Your task to perform on an android device: Clear all items from cart on amazon.com. Add "razer nari" to the cart on amazon.com Image 0: 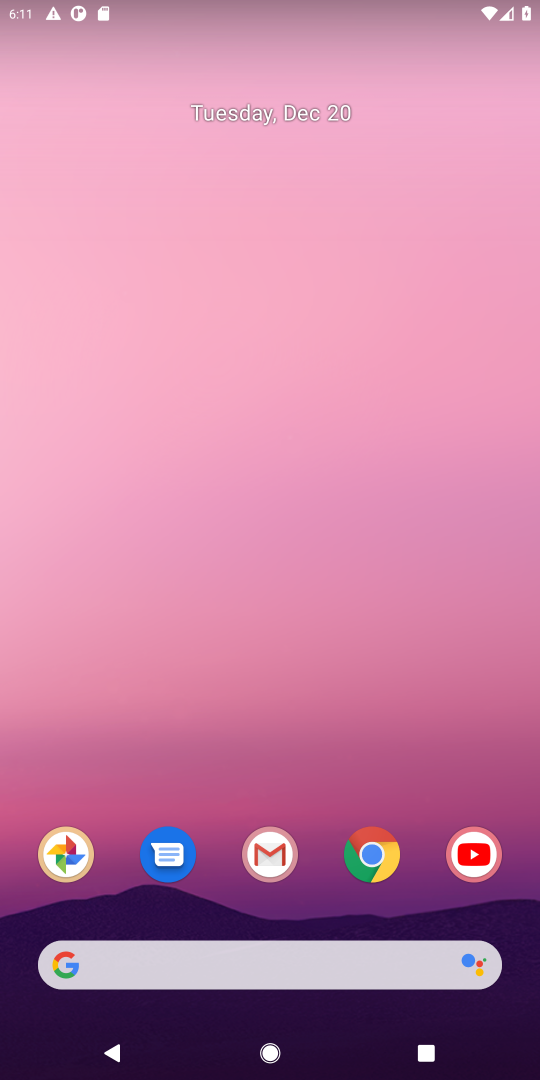
Step 0: click (369, 863)
Your task to perform on an android device: Clear all items from cart on amazon.com. Add "razer nari" to the cart on amazon.com Image 1: 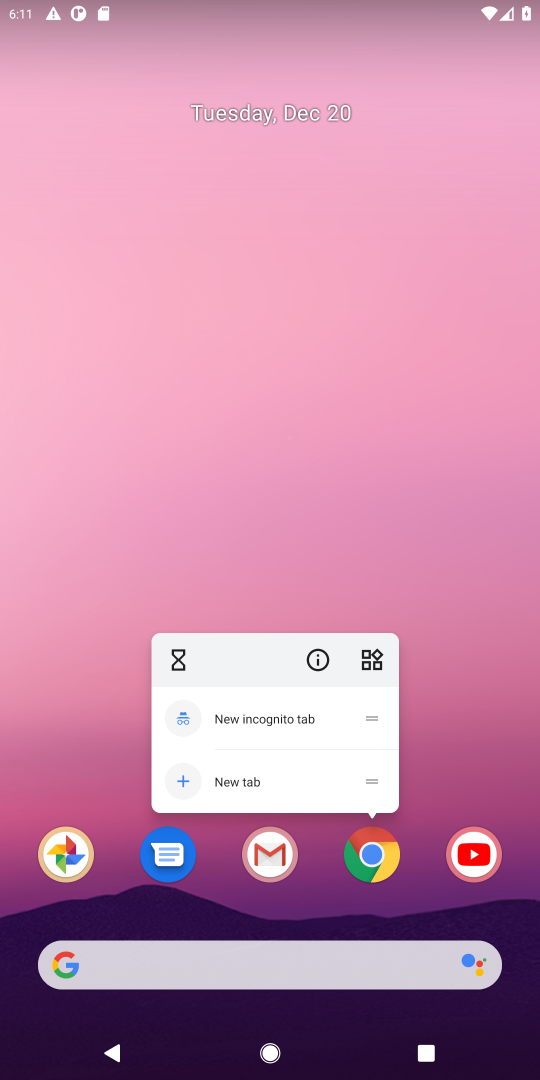
Step 1: click (372, 867)
Your task to perform on an android device: Clear all items from cart on amazon.com. Add "razer nari" to the cart on amazon.com Image 2: 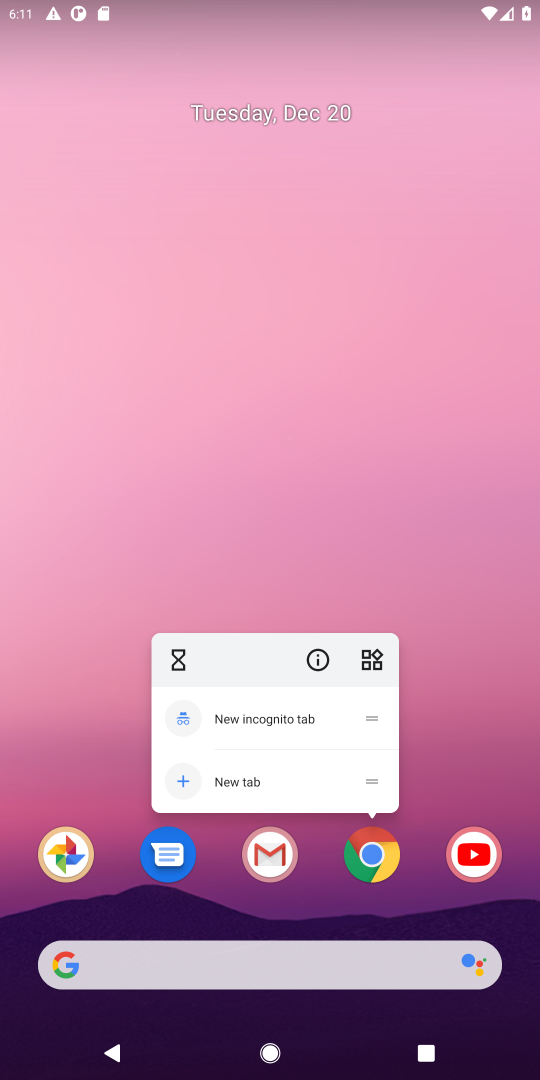
Step 2: click (372, 867)
Your task to perform on an android device: Clear all items from cart on amazon.com. Add "razer nari" to the cart on amazon.com Image 3: 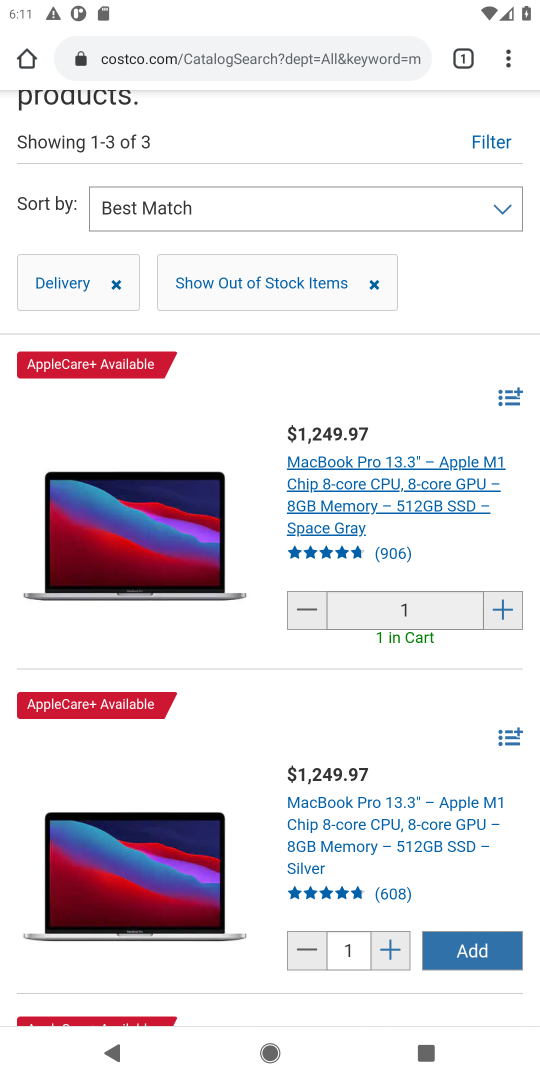
Step 3: click (208, 60)
Your task to perform on an android device: Clear all items from cart on amazon.com. Add "razer nari" to the cart on amazon.com Image 4: 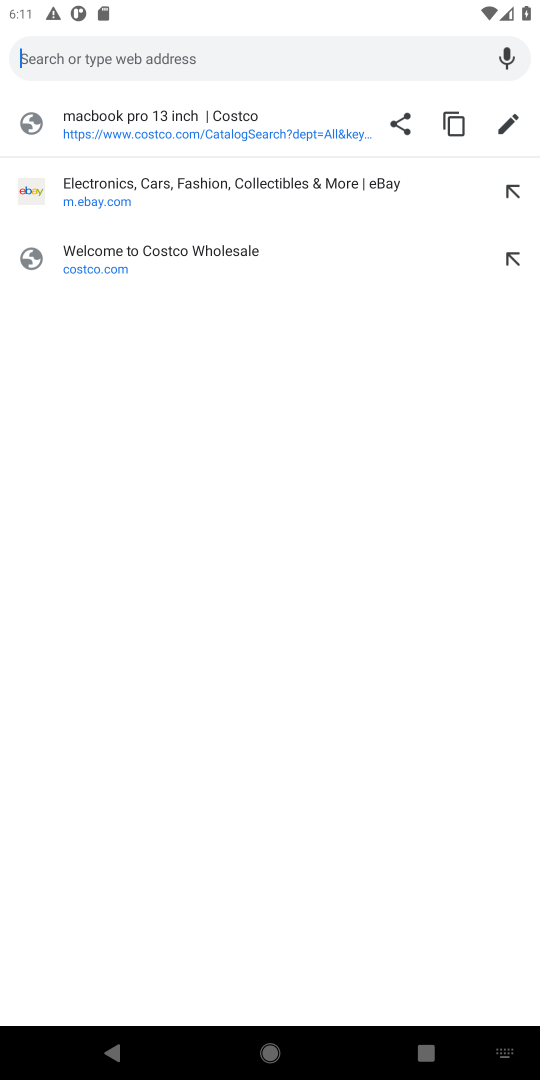
Step 4: type "amazon.com"
Your task to perform on an android device: Clear all items from cart on amazon.com. Add "razer nari" to the cart on amazon.com Image 5: 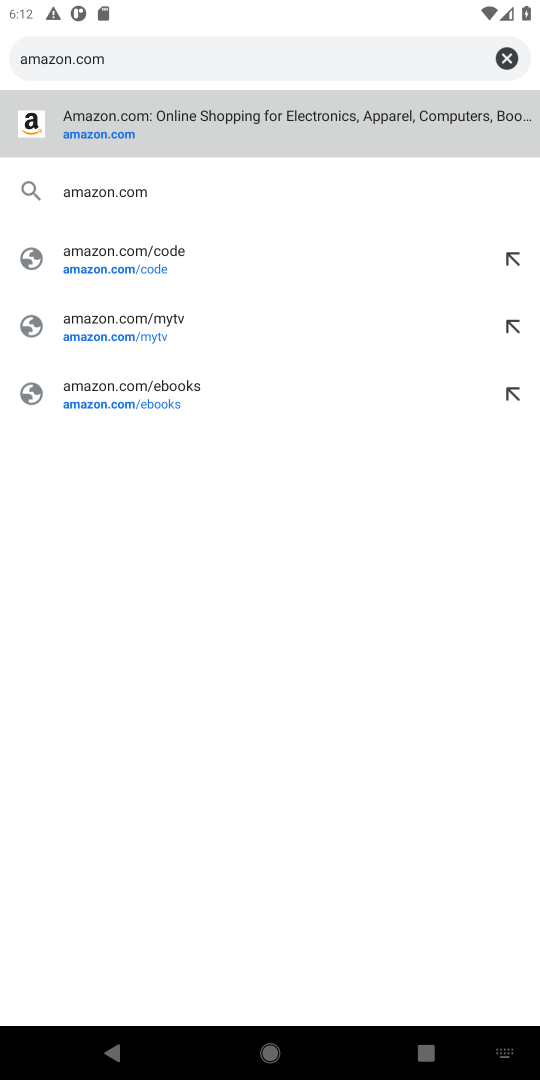
Step 5: click (92, 135)
Your task to perform on an android device: Clear all items from cart on amazon.com. Add "razer nari" to the cart on amazon.com Image 6: 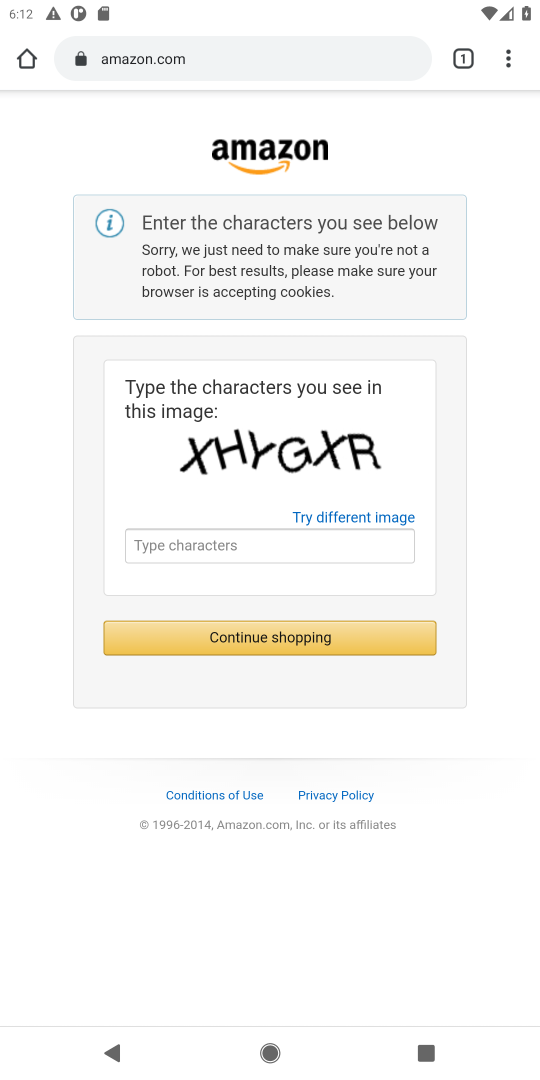
Step 6: click (198, 546)
Your task to perform on an android device: Clear all items from cart on amazon.com. Add "razer nari" to the cart on amazon.com Image 7: 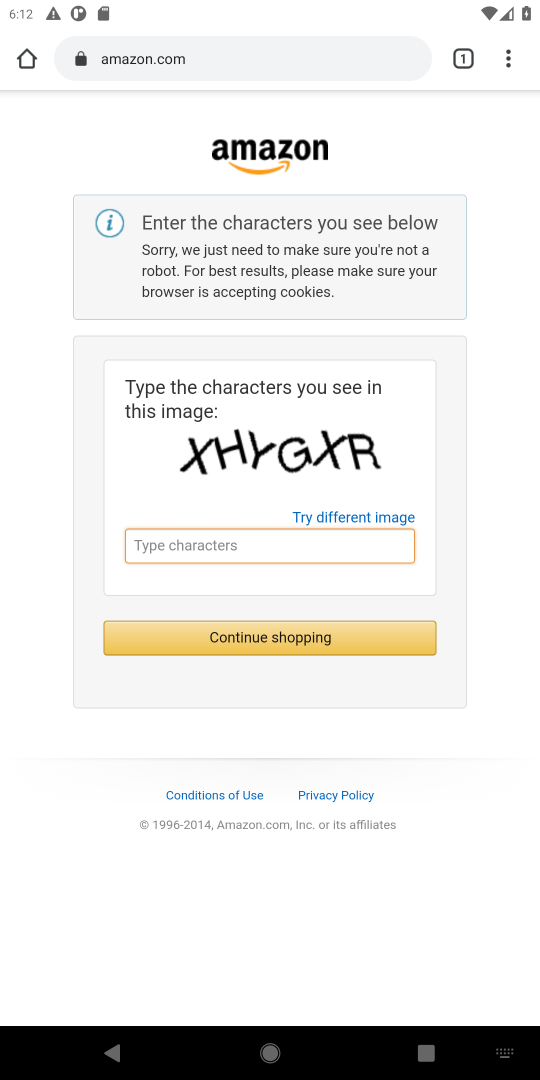
Step 7: type "XHYGXR"
Your task to perform on an android device: Clear all items from cart on amazon.com. Add "razer nari" to the cart on amazon.com Image 8: 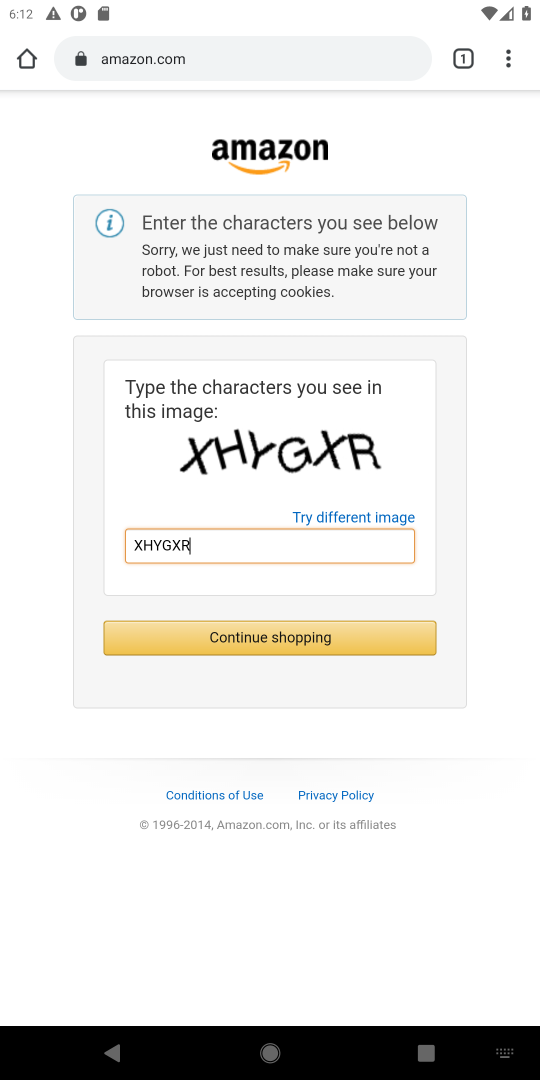
Step 8: click (218, 646)
Your task to perform on an android device: Clear all items from cart on amazon.com. Add "razer nari" to the cart on amazon.com Image 9: 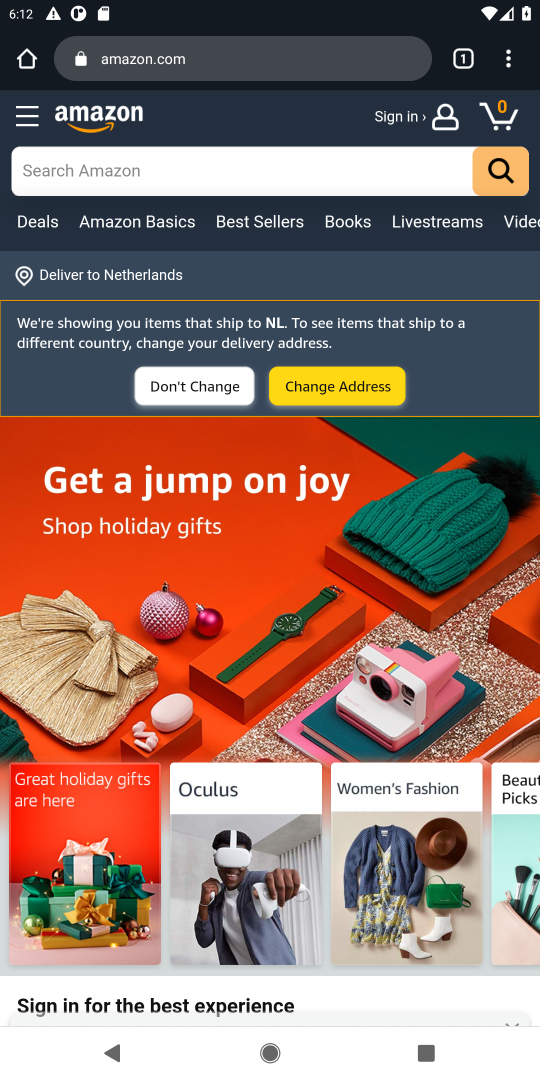
Step 9: click (494, 121)
Your task to perform on an android device: Clear all items from cart on amazon.com. Add "razer nari" to the cart on amazon.com Image 10: 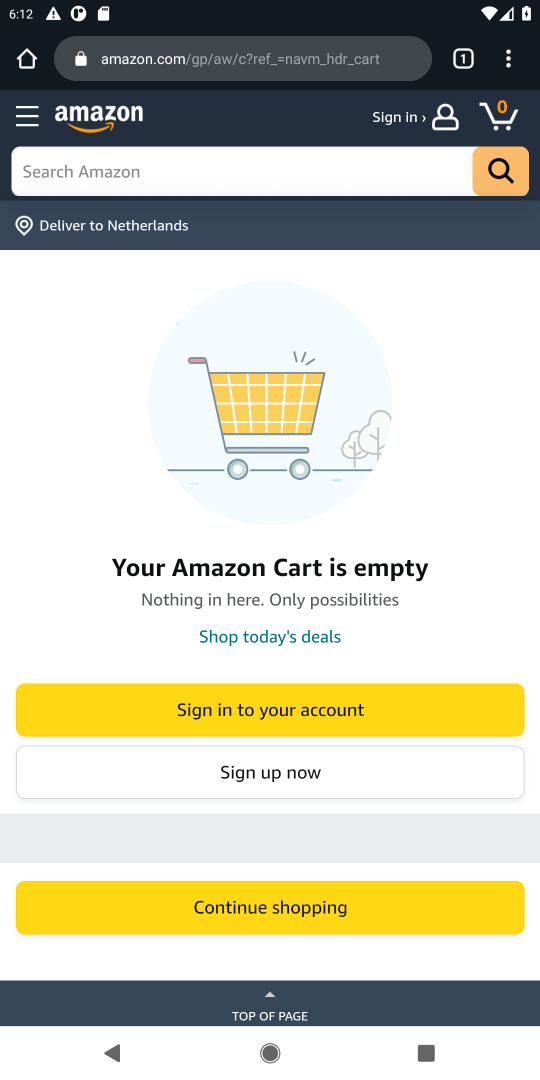
Step 10: click (61, 192)
Your task to perform on an android device: Clear all items from cart on amazon.com. Add "razer nari" to the cart on amazon.com Image 11: 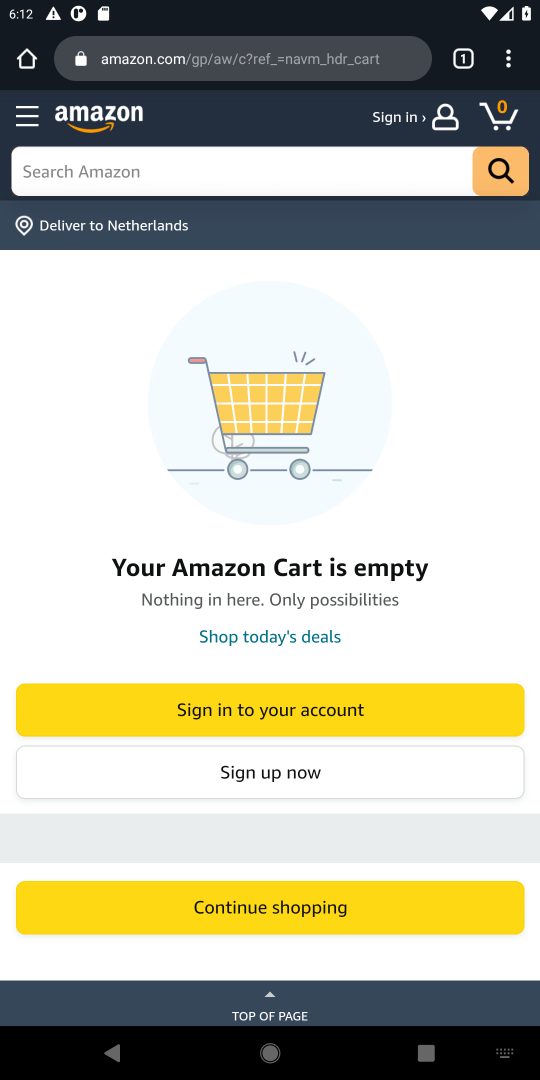
Step 11: type "razer nari"
Your task to perform on an android device: Clear all items from cart on amazon.com. Add "razer nari" to the cart on amazon.com Image 12: 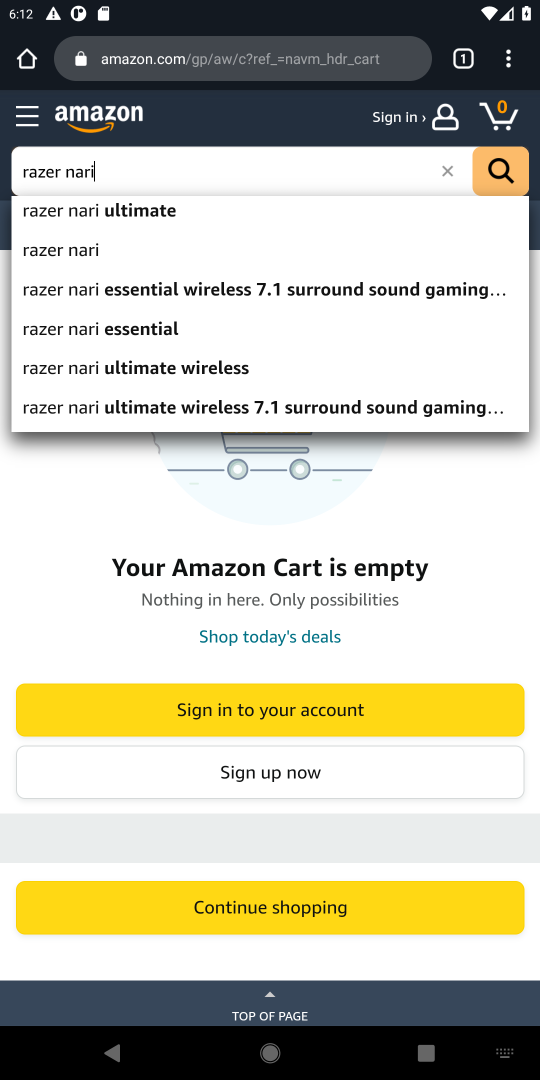
Step 12: click (50, 261)
Your task to perform on an android device: Clear all items from cart on amazon.com. Add "razer nari" to the cart on amazon.com Image 13: 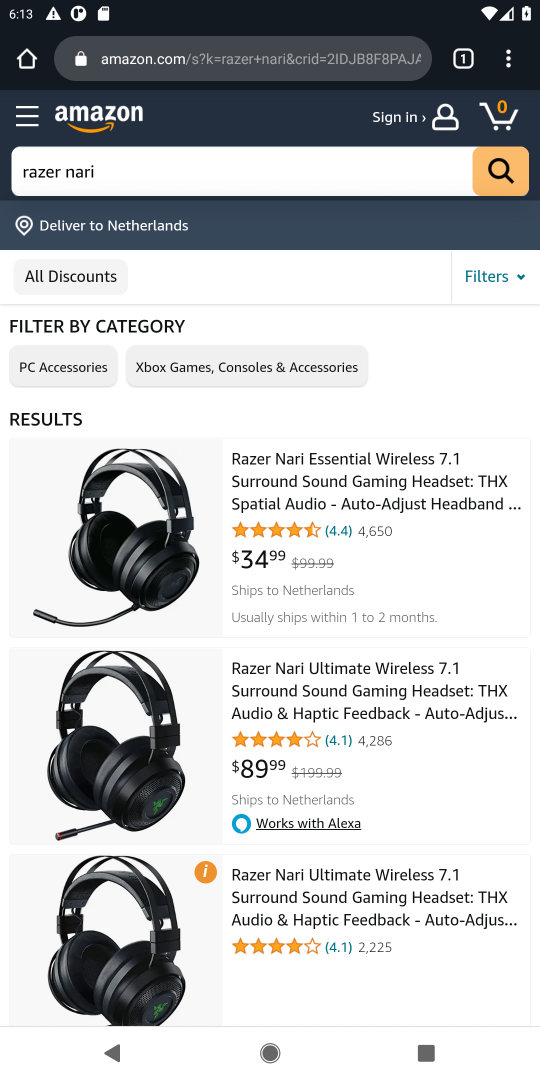
Step 13: click (302, 500)
Your task to perform on an android device: Clear all items from cart on amazon.com. Add "razer nari" to the cart on amazon.com Image 14: 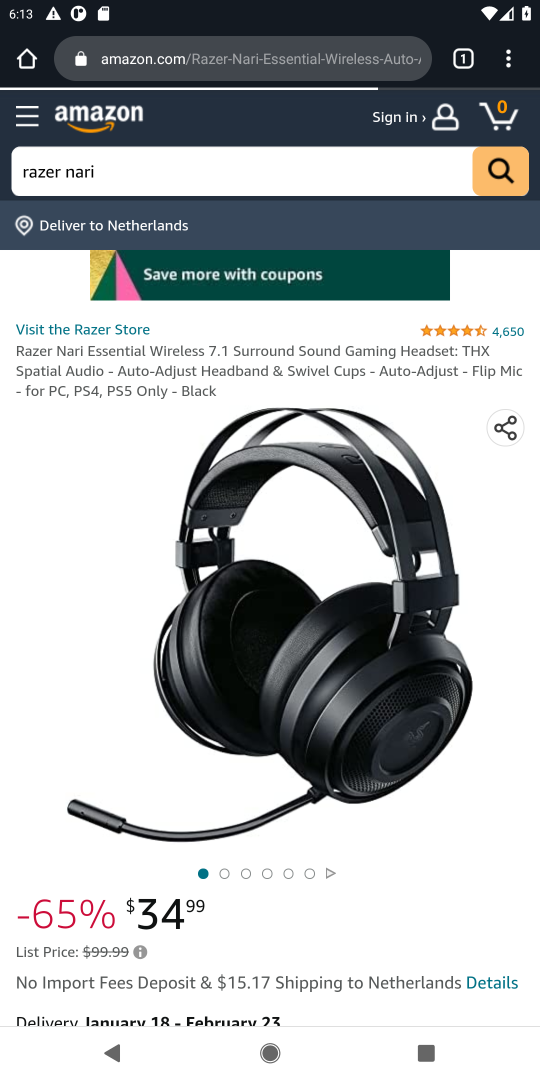
Step 14: drag from (209, 796) to (281, 206)
Your task to perform on an android device: Clear all items from cart on amazon.com. Add "razer nari" to the cart on amazon.com Image 15: 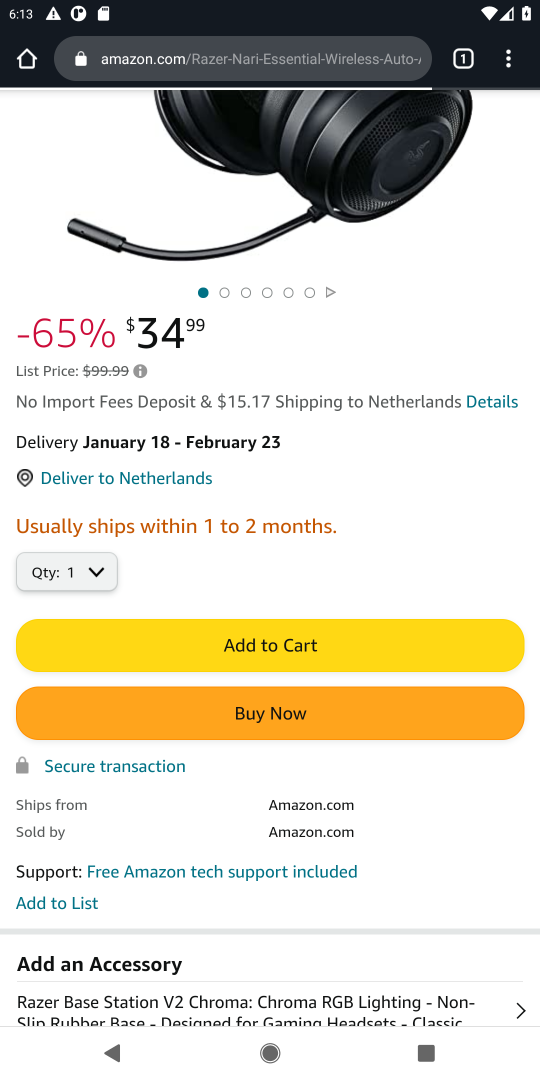
Step 15: click (244, 648)
Your task to perform on an android device: Clear all items from cart on amazon.com. Add "razer nari" to the cart on amazon.com Image 16: 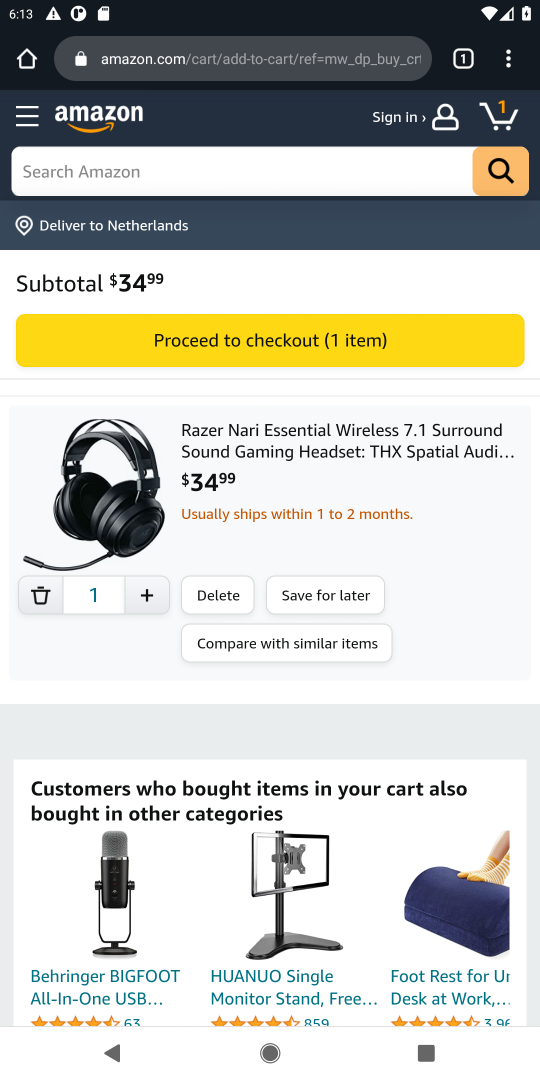
Step 16: task complete